Your task to perform on an android device: turn off sleep mode Image 0: 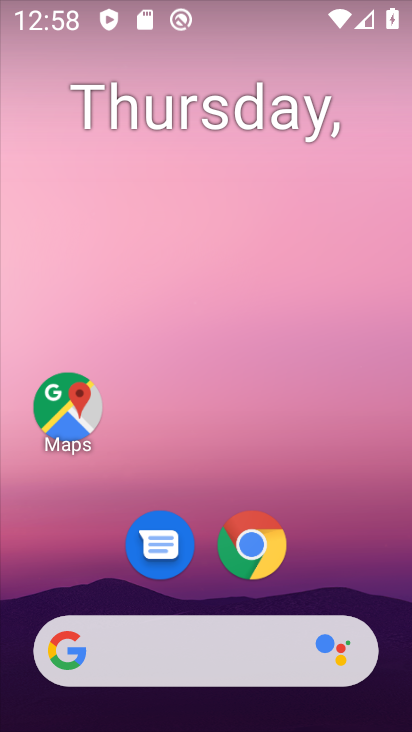
Step 0: drag from (302, 558) to (306, 31)
Your task to perform on an android device: turn off sleep mode Image 1: 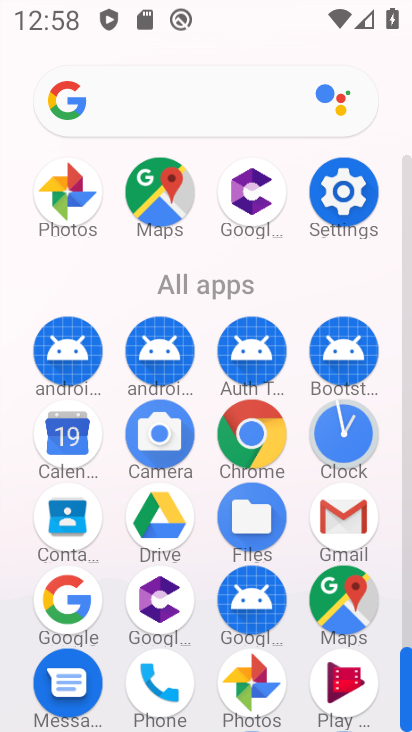
Step 1: click (346, 200)
Your task to perform on an android device: turn off sleep mode Image 2: 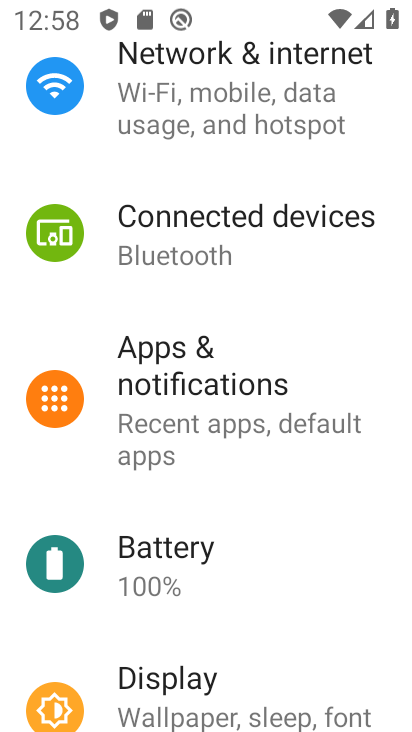
Step 2: drag from (183, 617) to (186, 292)
Your task to perform on an android device: turn off sleep mode Image 3: 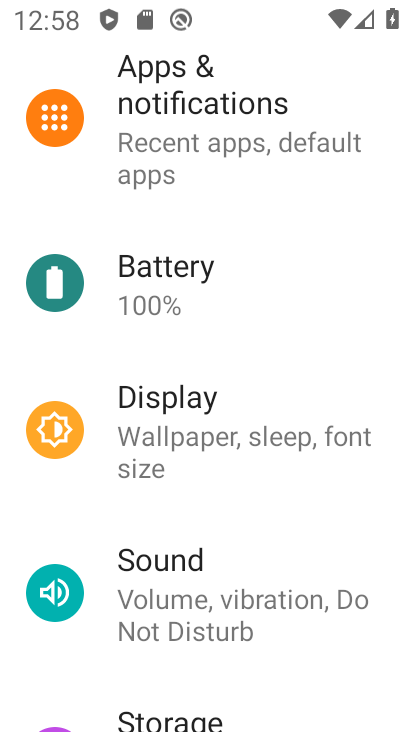
Step 3: click (196, 439)
Your task to perform on an android device: turn off sleep mode Image 4: 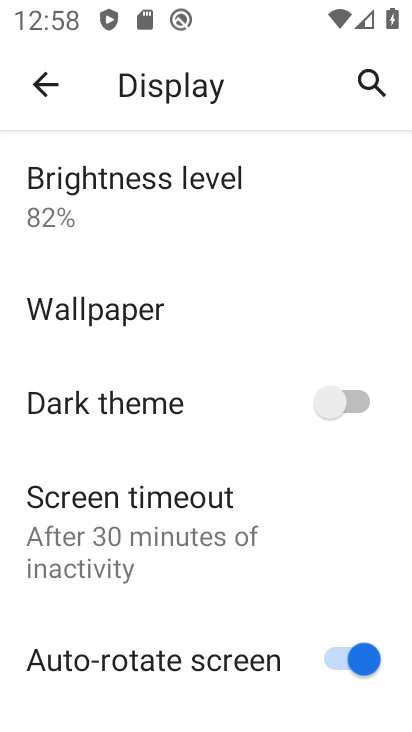
Step 4: drag from (132, 614) to (155, 152)
Your task to perform on an android device: turn off sleep mode Image 5: 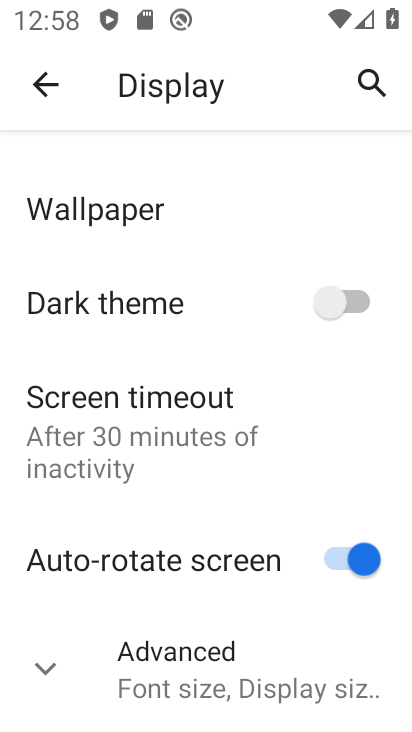
Step 5: click (168, 687)
Your task to perform on an android device: turn off sleep mode Image 6: 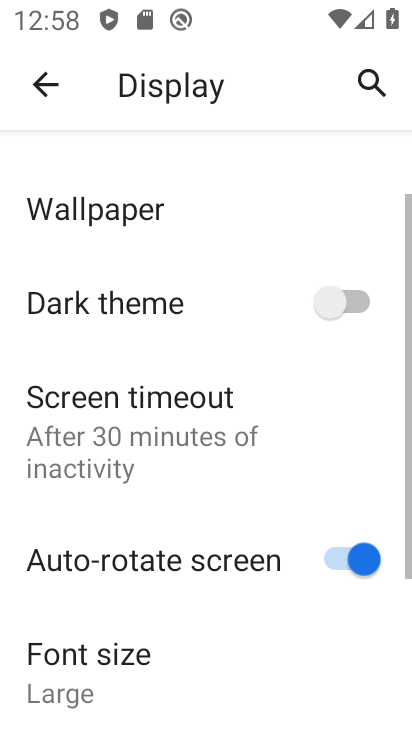
Step 6: task complete